Your task to perform on an android device: Go to wifi settings Image 0: 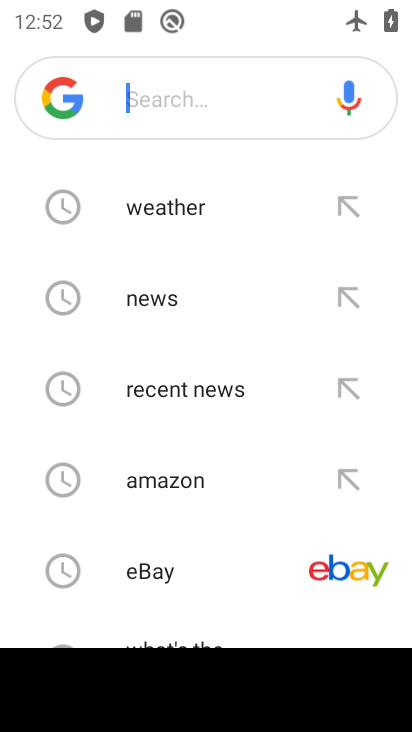
Step 0: press home button
Your task to perform on an android device: Go to wifi settings Image 1: 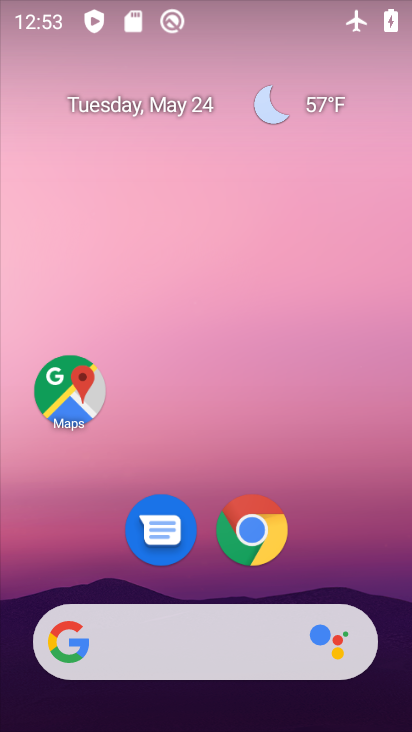
Step 1: drag from (168, 507) to (121, 11)
Your task to perform on an android device: Go to wifi settings Image 2: 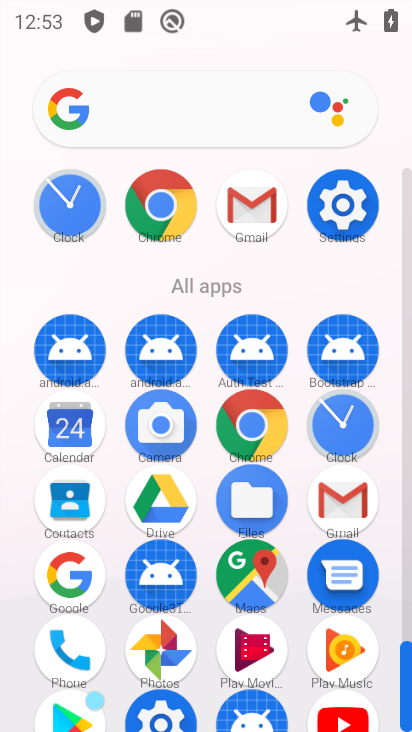
Step 2: click (350, 192)
Your task to perform on an android device: Go to wifi settings Image 3: 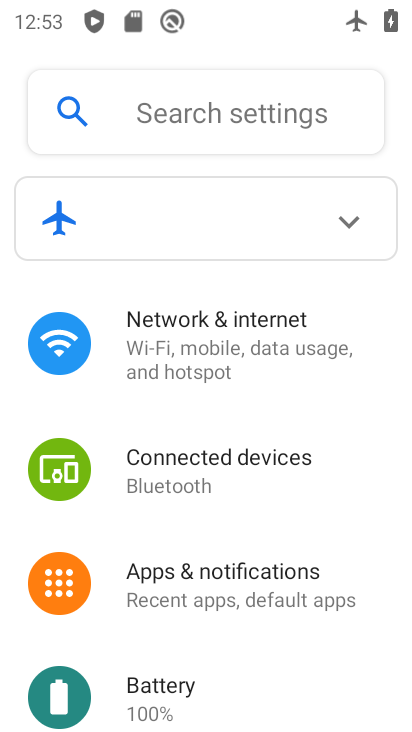
Step 3: click (181, 373)
Your task to perform on an android device: Go to wifi settings Image 4: 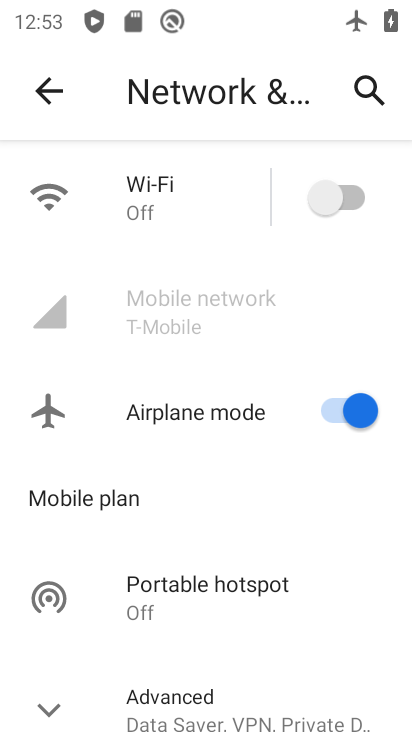
Step 4: click (157, 210)
Your task to perform on an android device: Go to wifi settings Image 5: 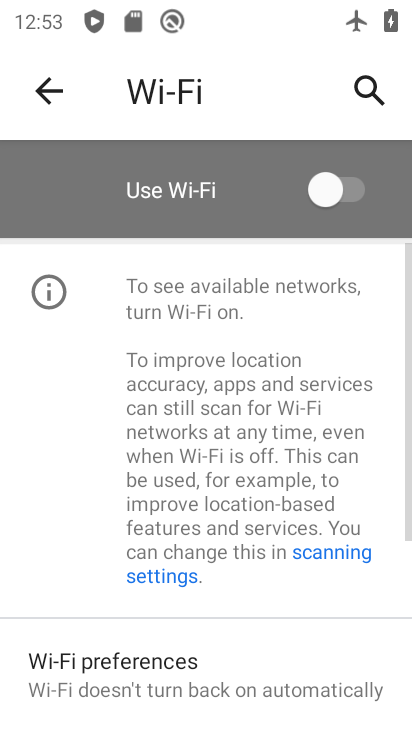
Step 5: task complete